Your task to perform on an android device: toggle notification dots Image 0: 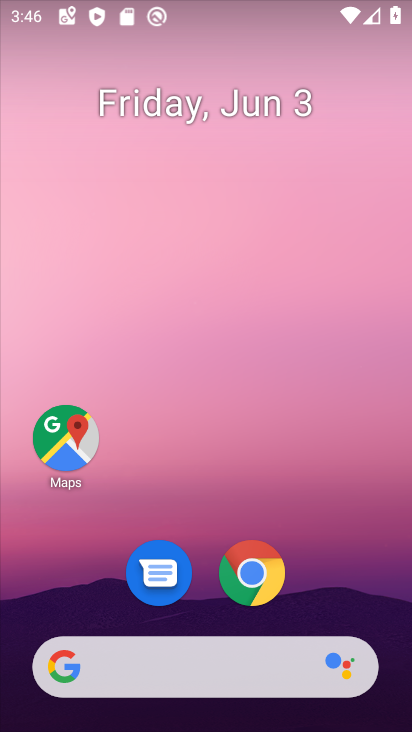
Step 0: drag from (387, 711) to (317, 154)
Your task to perform on an android device: toggle notification dots Image 1: 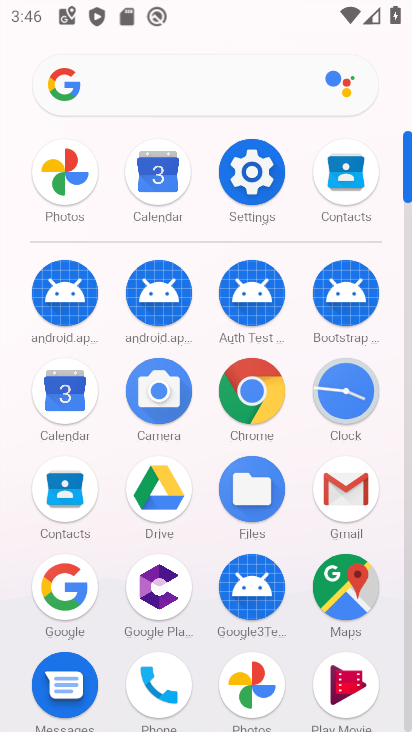
Step 1: click (245, 179)
Your task to perform on an android device: toggle notification dots Image 2: 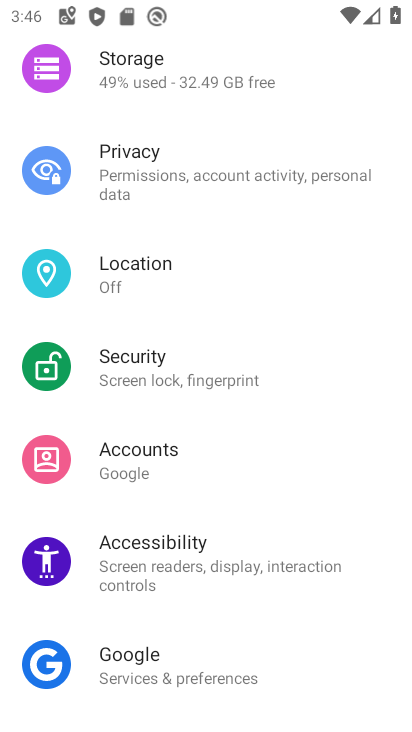
Step 2: drag from (300, 662) to (281, 310)
Your task to perform on an android device: toggle notification dots Image 3: 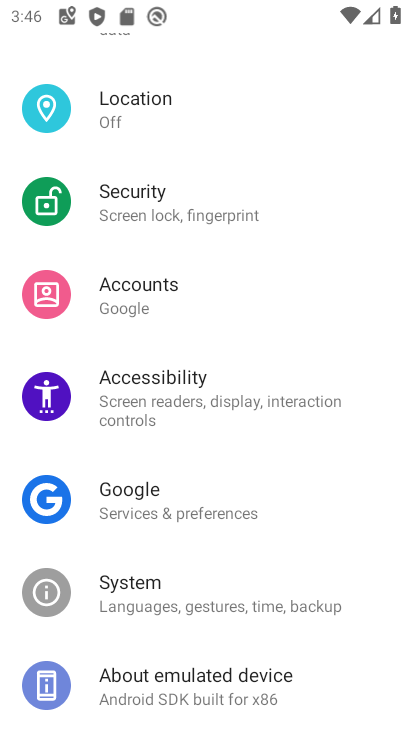
Step 3: drag from (293, 144) to (323, 640)
Your task to perform on an android device: toggle notification dots Image 4: 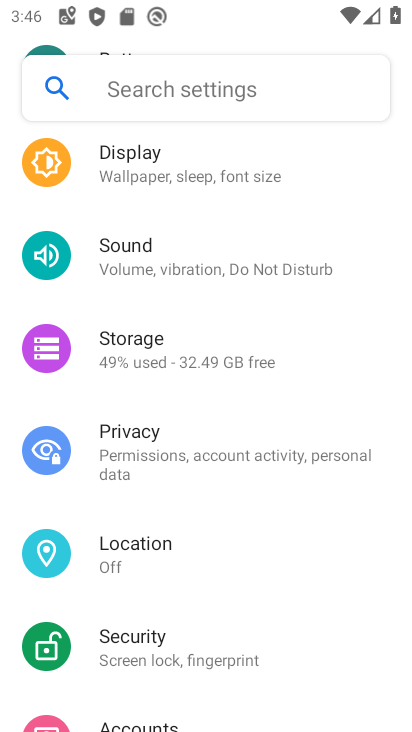
Step 4: drag from (284, 232) to (300, 562)
Your task to perform on an android device: toggle notification dots Image 5: 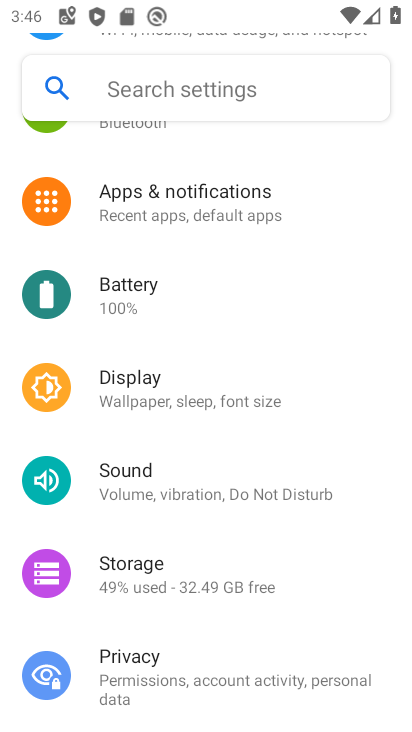
Step 5: drag from (330, 108) to (362, 683)
Your task to perform on an android device: toggle notification dots Image 6: 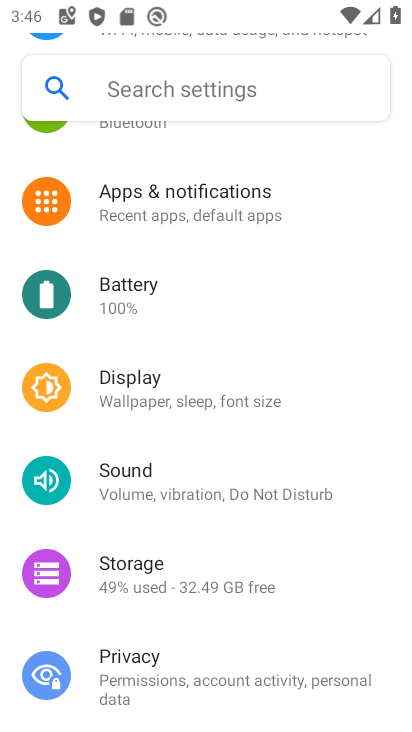
Step 6: click (202, 194)
Your task to perform on an android device: toggle notification dots Image 7: 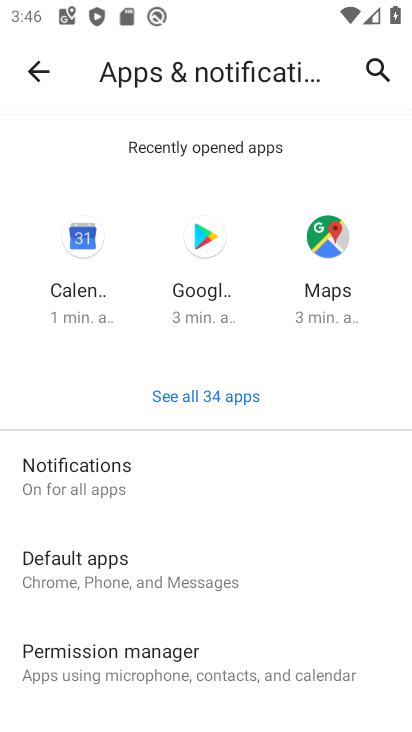
Step 7: click (41, 473)
Your task to perform on an android device: toggle notification dots Image 8: 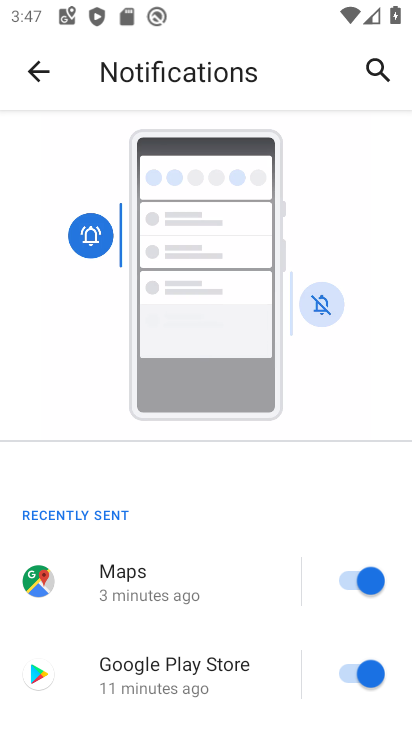
Step 8: drag from (247, 669) to (266, 221)
Your task to perform on an android device: toggle notification dots Image 9: 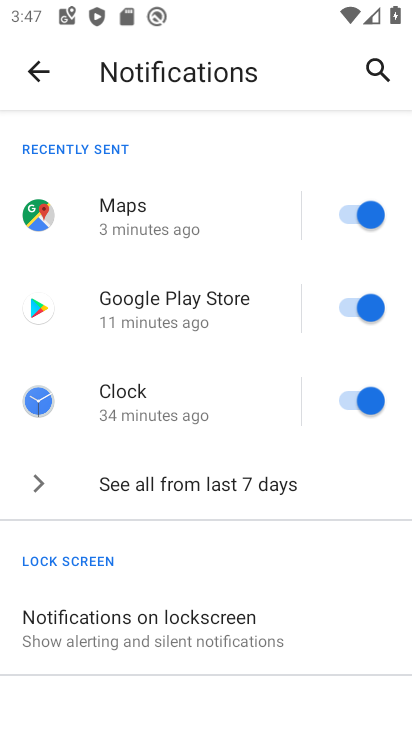
Step 9: drag from (225, 571) to (206, 186)
Your task to perform on an android device: toggle notification dots Image 10: 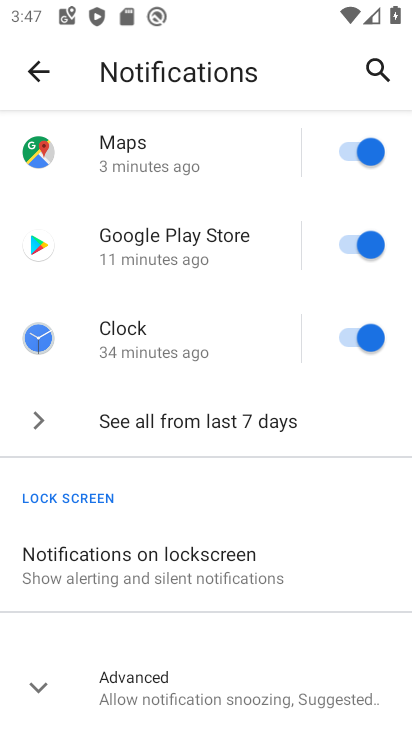
Step 10: click (136, 671)
Your task to perform on an android device: toggle notification dots Image 11: 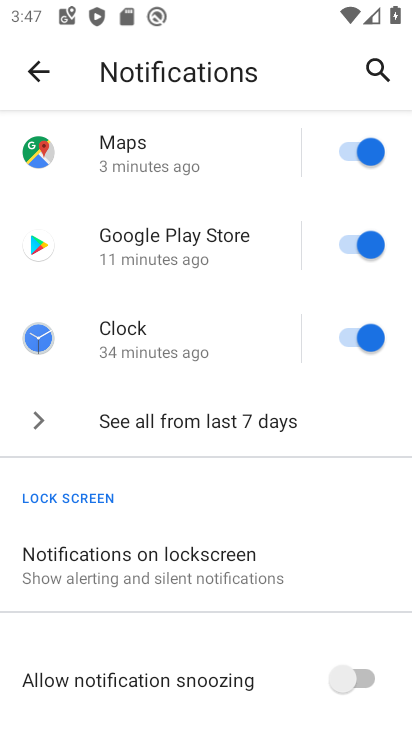
Step 11: drag from (277, 703) to (270, 255)
Your task to perform on an android device: toggle notification dots Image 12: 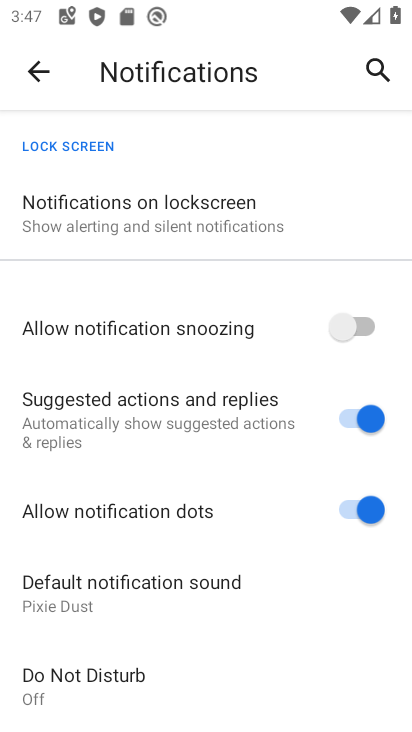
Step 12: click (343, 505)
Your task to perform on an android device: toggle notification dots Image 13: 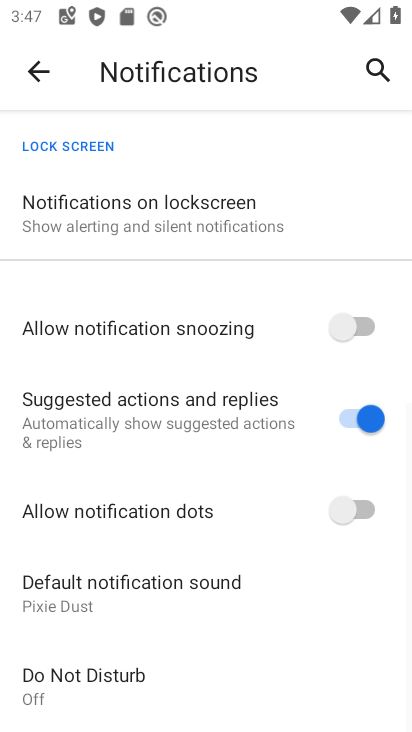
Step 13: task complete